Your task to perform on an android device: delete the emails in spam in the gmail app Image 0: 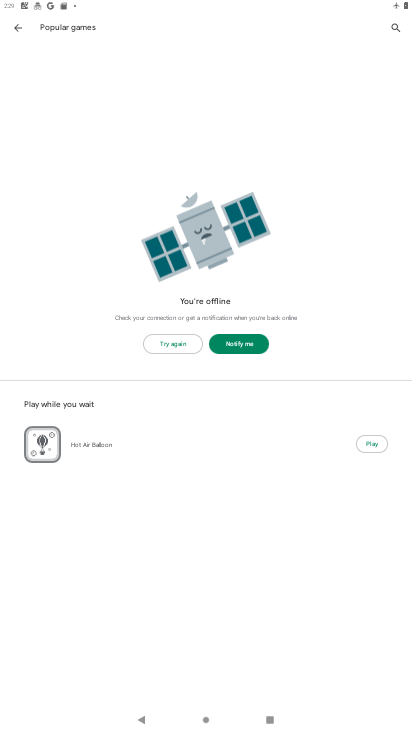
Step 0: press home button
Your task to perform on an android device: delete the emails in spam in the gmail app Image 1: 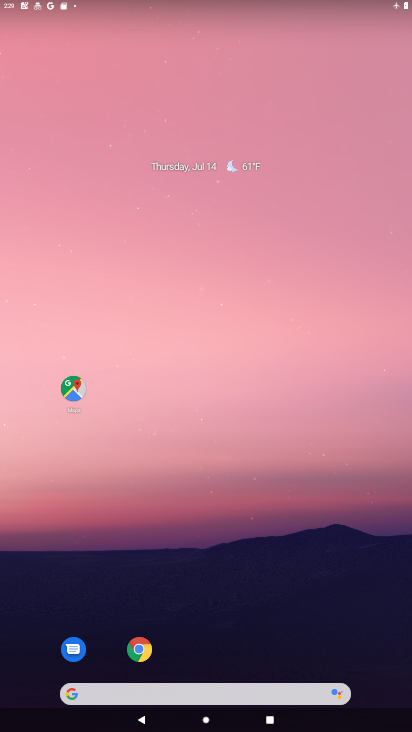
Step 1: drag from (302, 671) to (295, 6)
Your task to perform on an android device: delete the emails in spam in the gmail app Image 2: 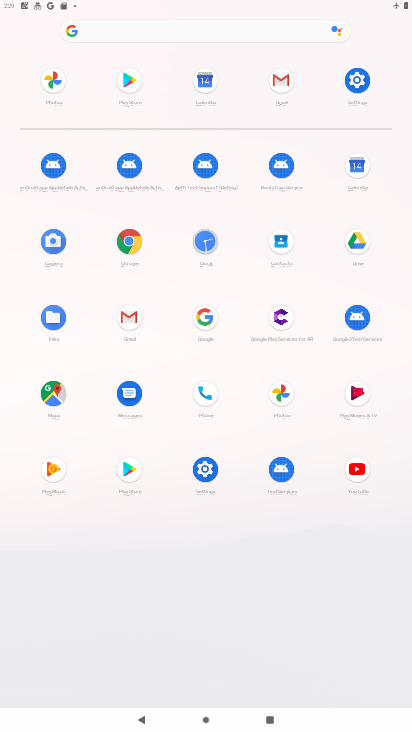
Step 2: click (134, 319)
Your task to perform on an android device: delete the emails in spam in the gmail app Image 3: 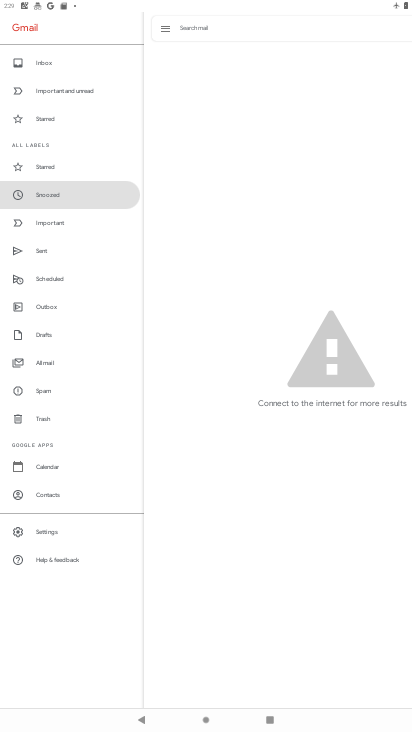
Step 3: click (39, 390)
Your task to perform on an android device: delete the emails in spam in the gmail app Image 4: 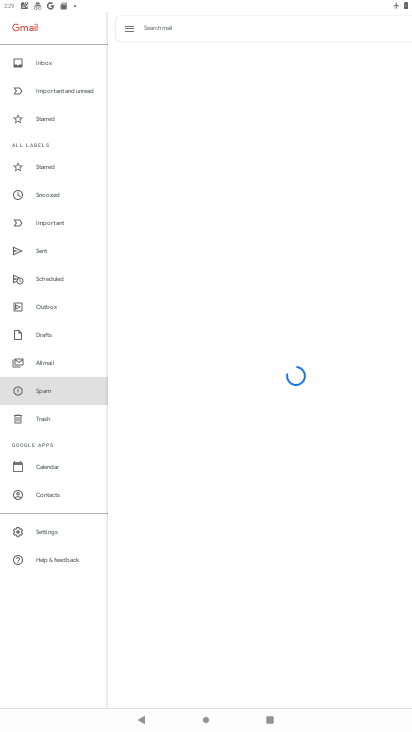
Step 4: task complete